Your task to perform on an android device: Open network settings Image 0: 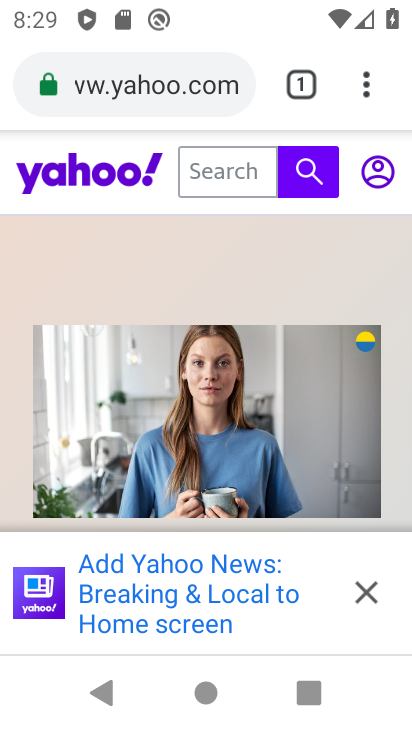
Step 0: click (368, 95)
Your task to perform on an android device: Open network settings Image 1: 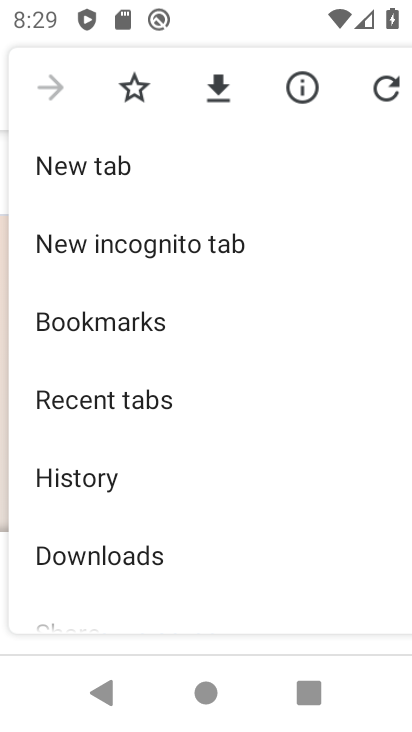
Step 1: press home button
Your task to perform on an android device: Open network settings Image 2: 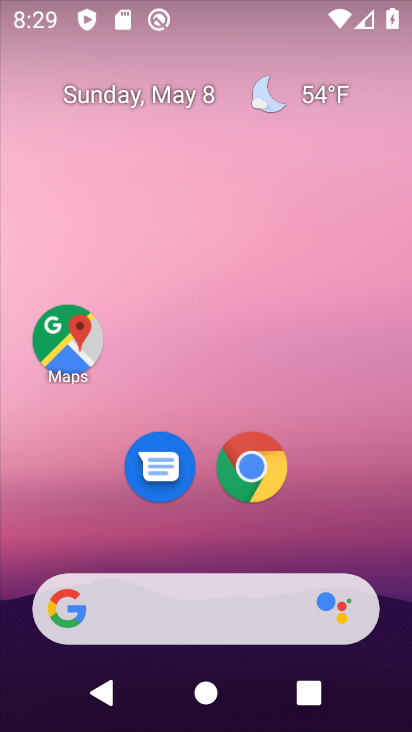
Step 2: drag from (375, 578) to (293, 167)
Your task to perform on an android device: Open network settings Image 3: 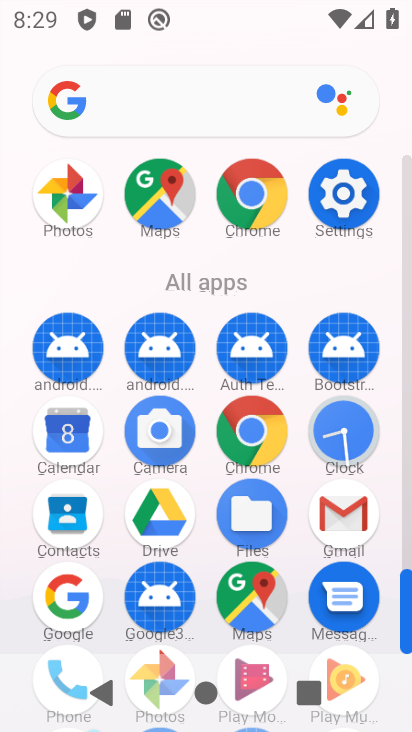
Step 3: drag from (405, 557) to (406, 512)
Your task to perform on an android device: Open network settings Image 4: 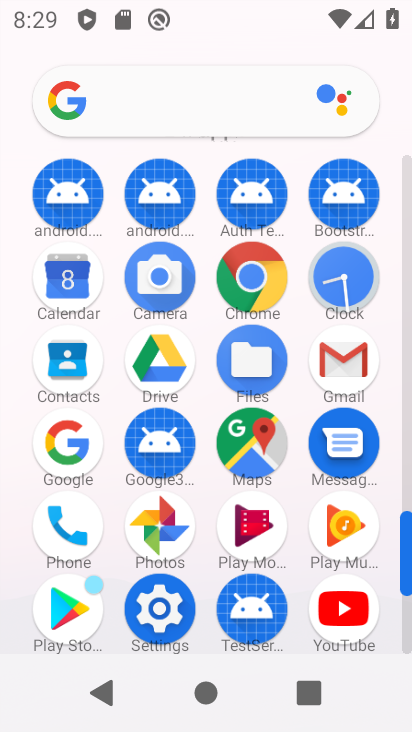
Step 4: click (162, 610)
Your task to perform on an android device: Open network settings Image 5: 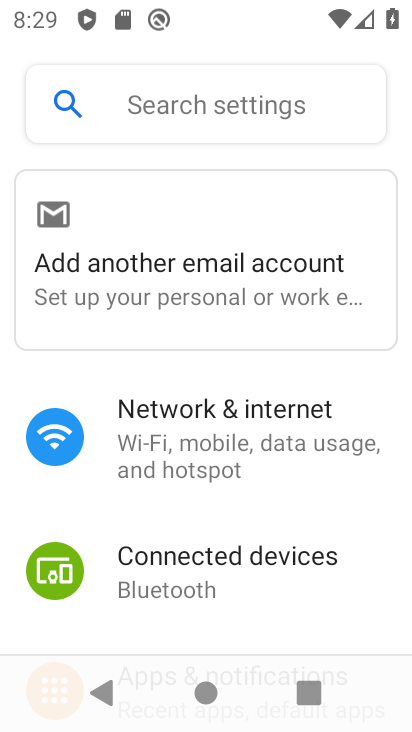
Step 5: click (136, 431)
Your task to perform on an android device: Open network settings Image 6: 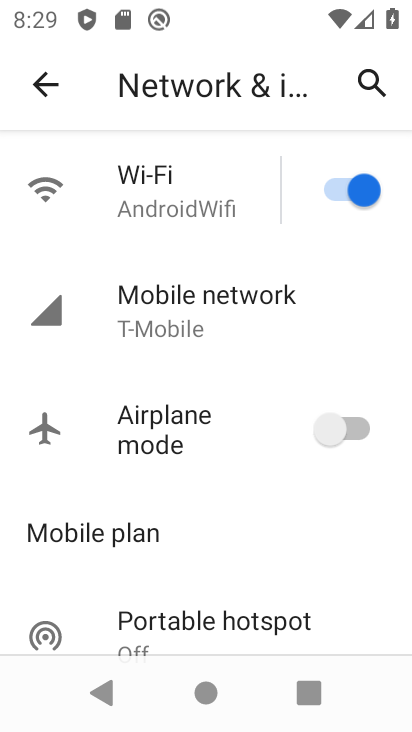
Step 6: click (138, 290)
Your task to perform on an android device: Open network settings Image 7: 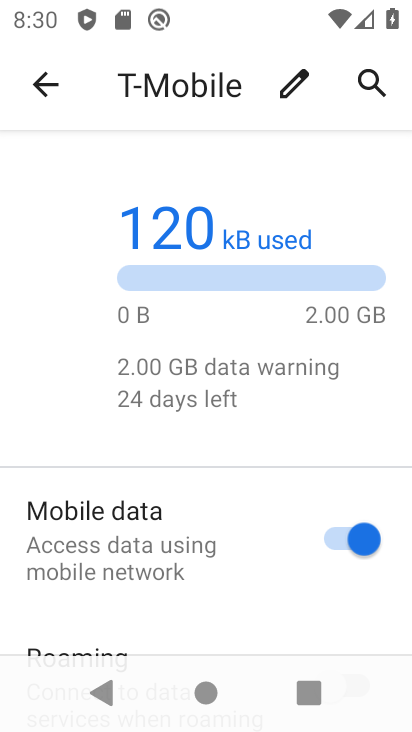
Step 7: task complete